Your task to perform on an android device: make emails show in primary in the gmail app Image 0: 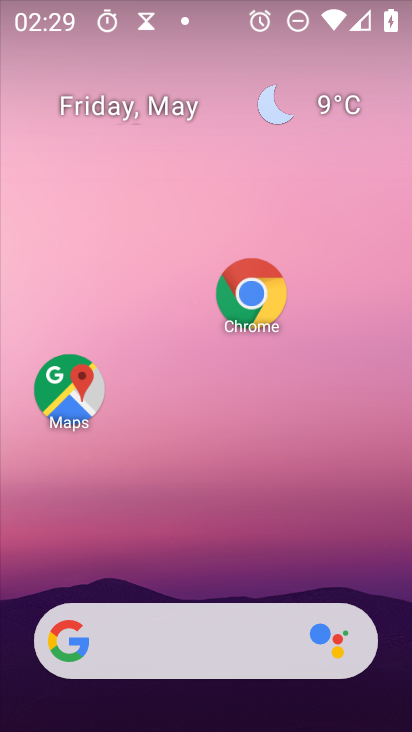
Step 0: drag from (244, 659) to (363, 304)
Your task to perform on an android device: make emails show in primary in the gmail app Image 1: 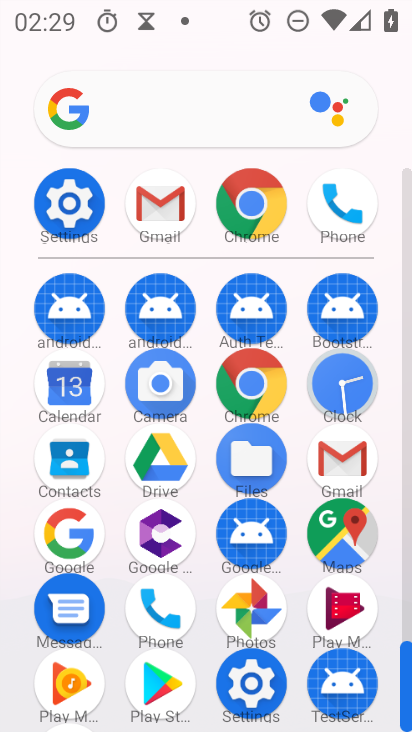
Step 1: click (163, 218)
Your task to perform on an android device: make emails show in primary in the gmail app Image 2: 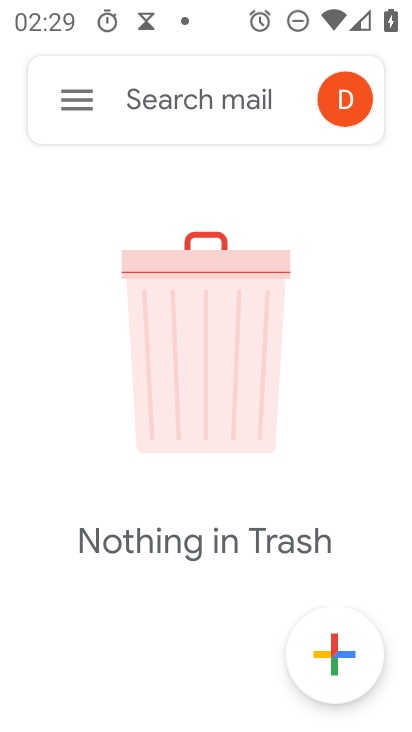
Step 2: click (77, 104)
Your task to perform on an android device: make emails show in primary in the gmail app Image 3: 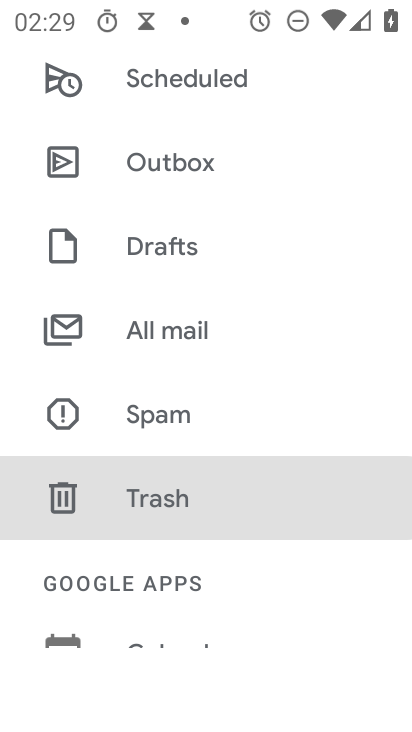
Step 3: drag from (197, 593) to (336, 208)
Your task to perform on an android device: make emails show in primary in the gmail app Image 4: 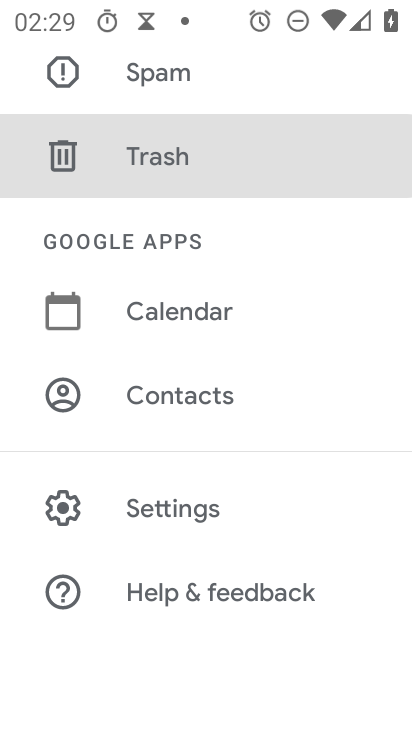
Step 4: click (176, 506)
Your task to perform on an android device: make emails show in primary in the gmail app Image 5: 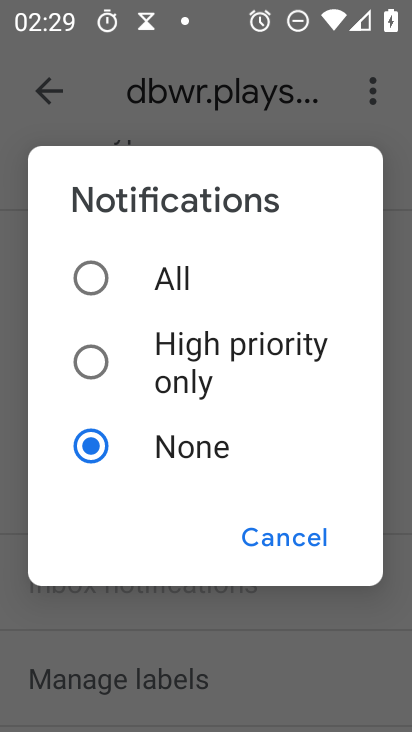
Step 5: click (258, 546)
Your task to perform on an android device: make emails show in primary in the gmail app Image 6: 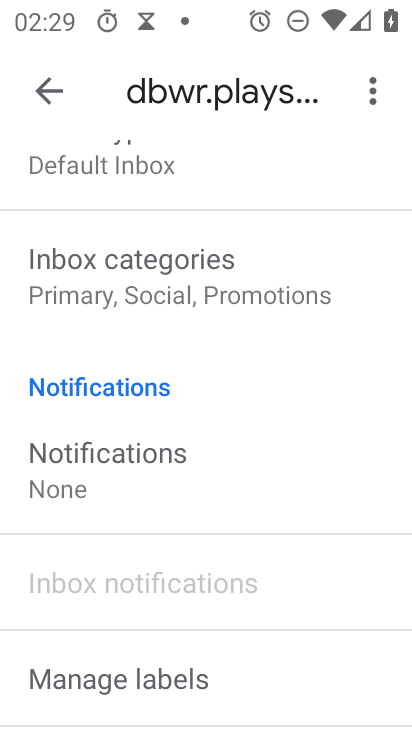
Step 6: click (133, 294)
Your task to perform on an android device: make emails show in primary in the gmail app Image 7: 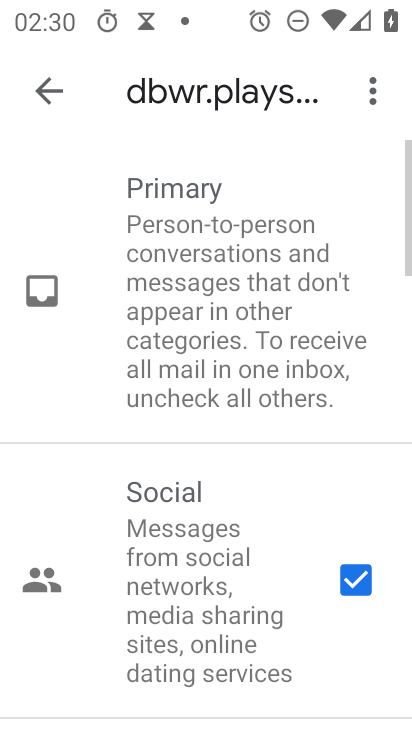
Step 7: drag from (231, 545) to (328, 207)
Your task to perform on an android device: make emails show in primary in the gmail app Image 8: 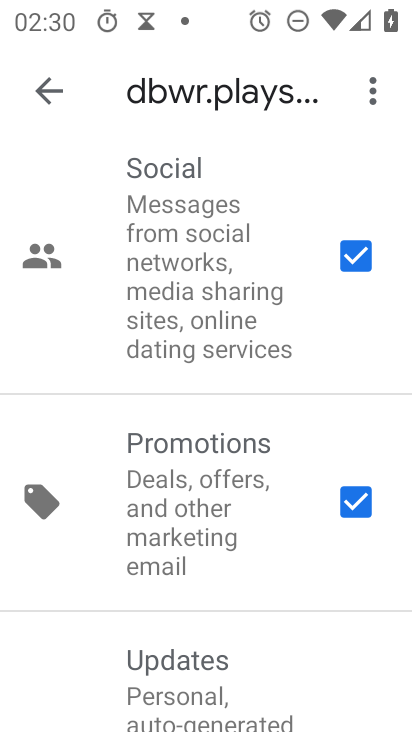
Step 8: click (369, 266)
Your task to perform on an android device: make emails show in primary in the gmail app Image 9: 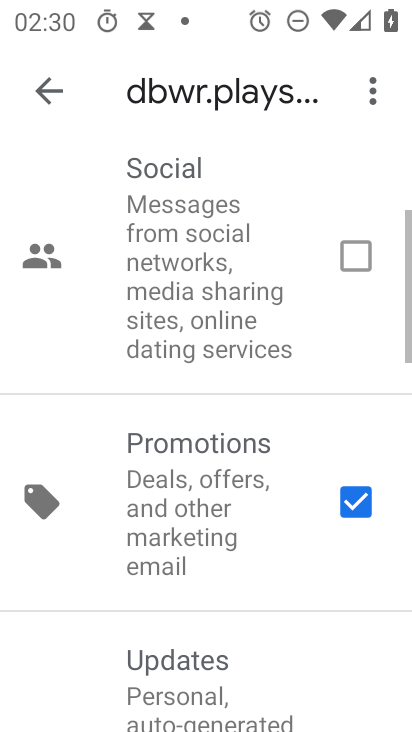
Step 9: click (360, 477)
Your task to perform on an android device: make emails show in primary in the gmail app Image 10: 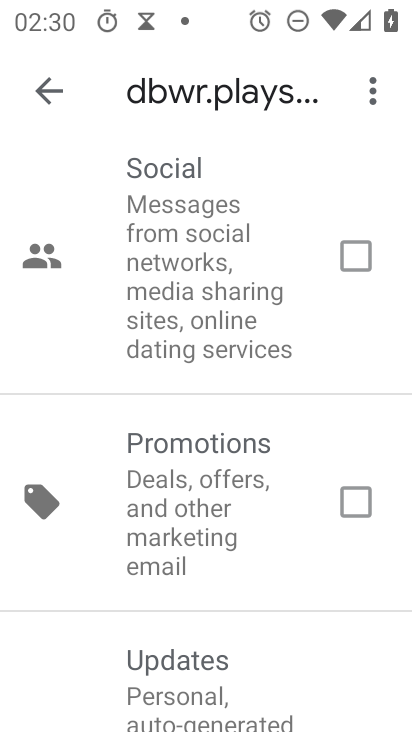
Step 10: drag from (272, 543) to (289, 374)
Your task to perform on an android device: make emails show in primary in the gmail app Image 11: 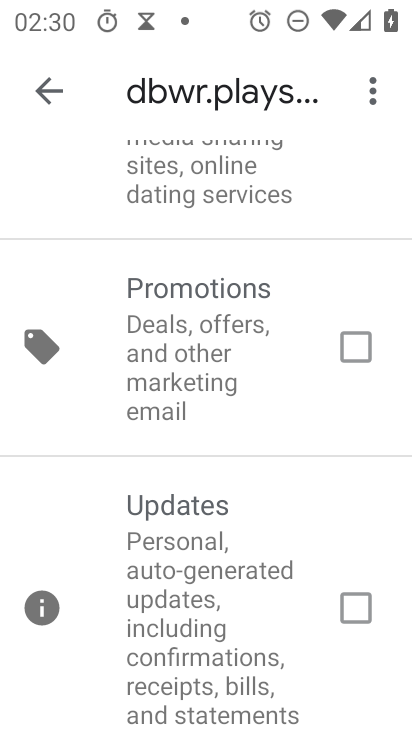
Step 11: drag from (295, 315) to (187, 567)
Your task to perform on an android device: make emails show in primary in the gmail app Image 12: 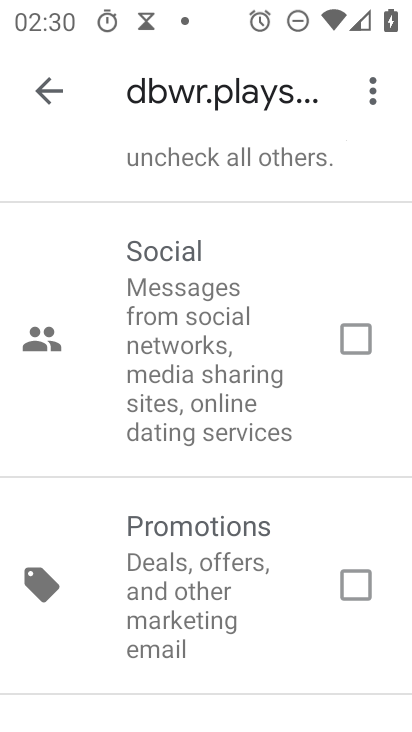
Step 12: click (42, 85)
Your task to perform on an android device: make emails show in primary in the gmail app Image 13: 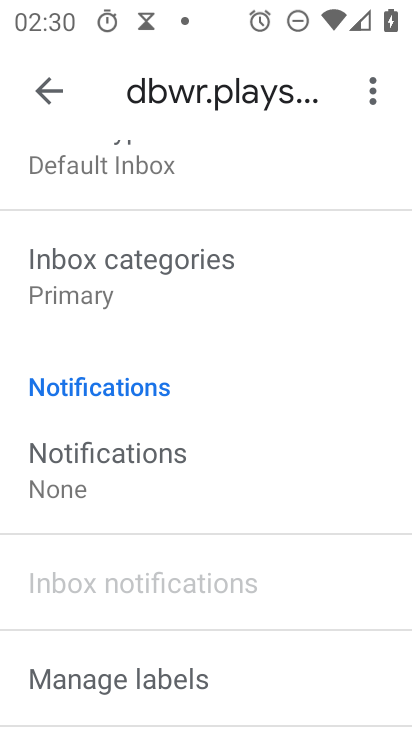
Step 13: task complete